Your task to perform on an android device: open app "Expedia: Hotels, Flights & Car" Image 0: 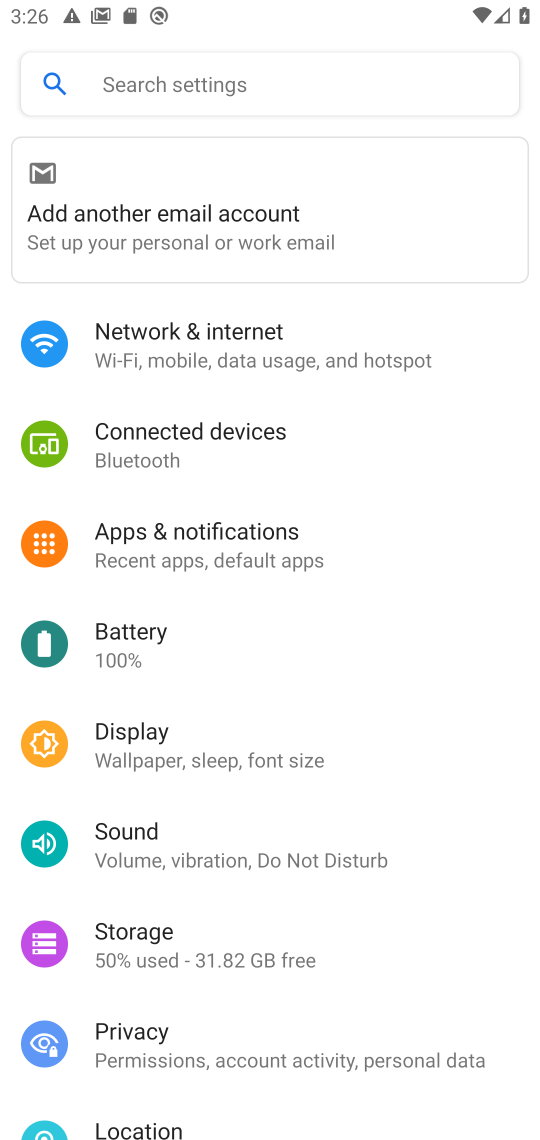
Step 0: press home button
Your task to perform on an android device: open app "Expedia: Hotels, Flights & Car" Image 1: 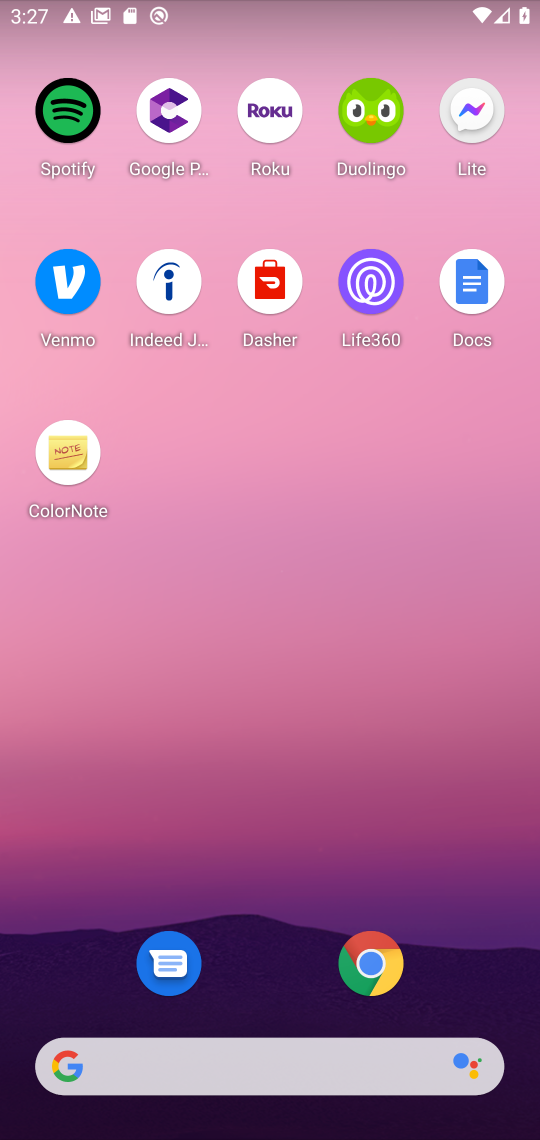
Step 1: drag from (213, 1045) to (216, 233)
Your task to perform on an android device: open app "Expedia: Hotels, Flights & Car" Image 2: 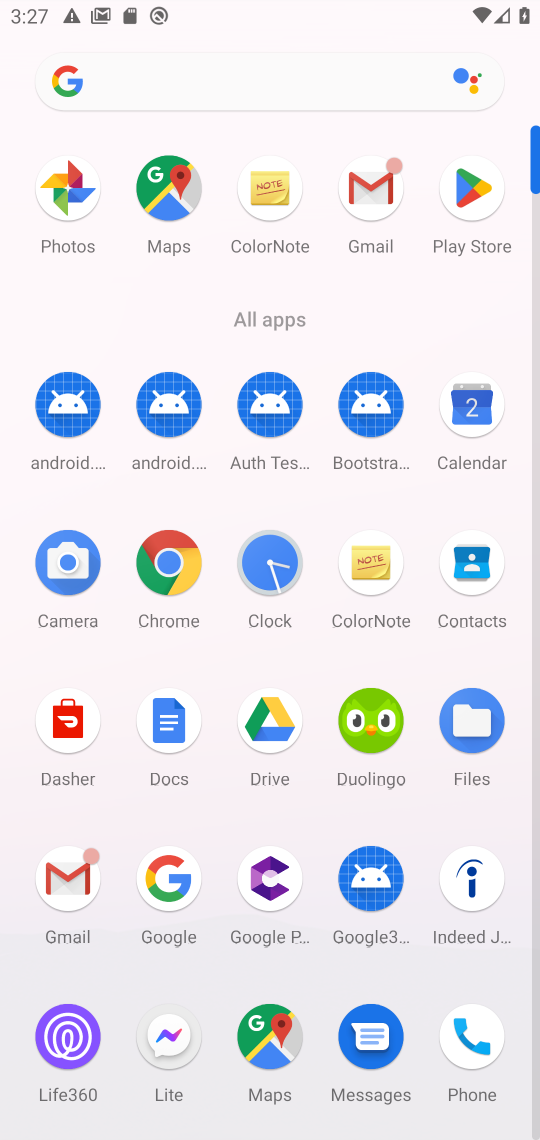
Step 2: click (470, 178)
Your task to perform on an android device: open app "Expedia: Hotels, Flights & Car" Image 3: 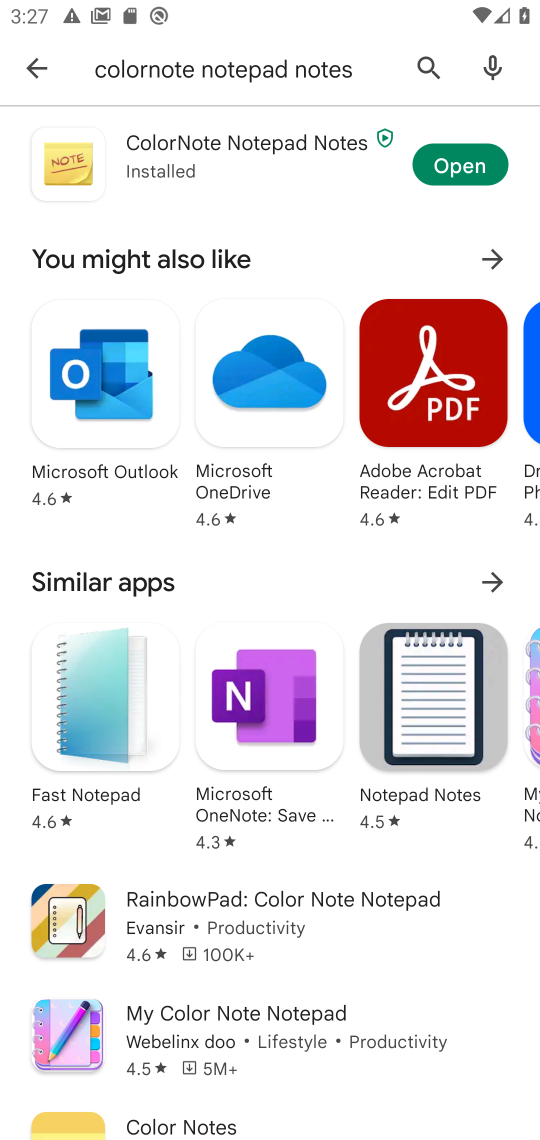
Step 3: click (428, 69)
Your task to perform on an android device: open app "Expedia: Hotels, Flights & Car" Image 4: 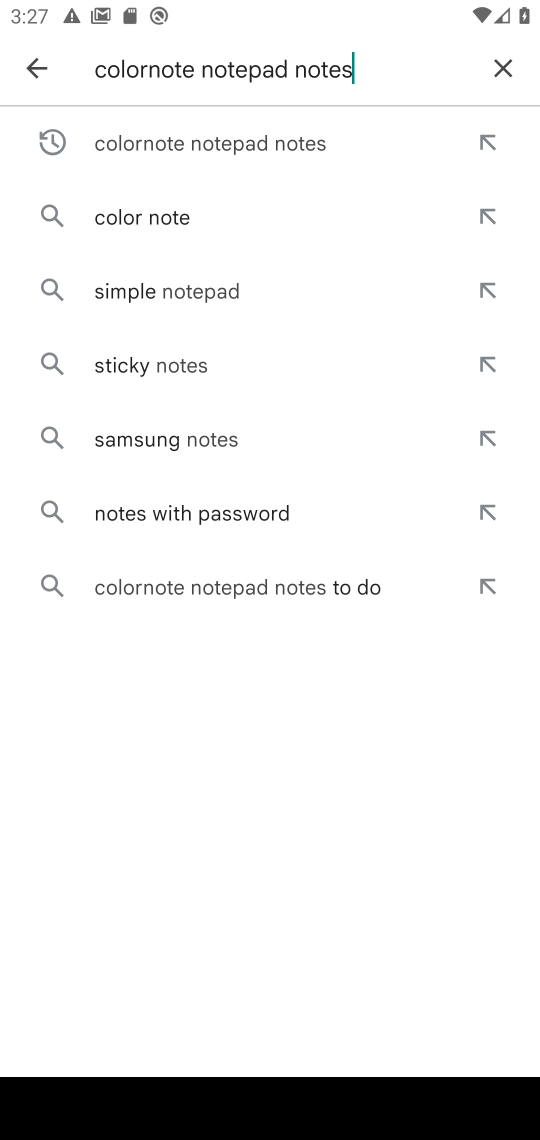
Step 4: click (499, 75)
Your task to perform on an android device: open app "Expedia: Hotels, Flights & Car" Image 5: 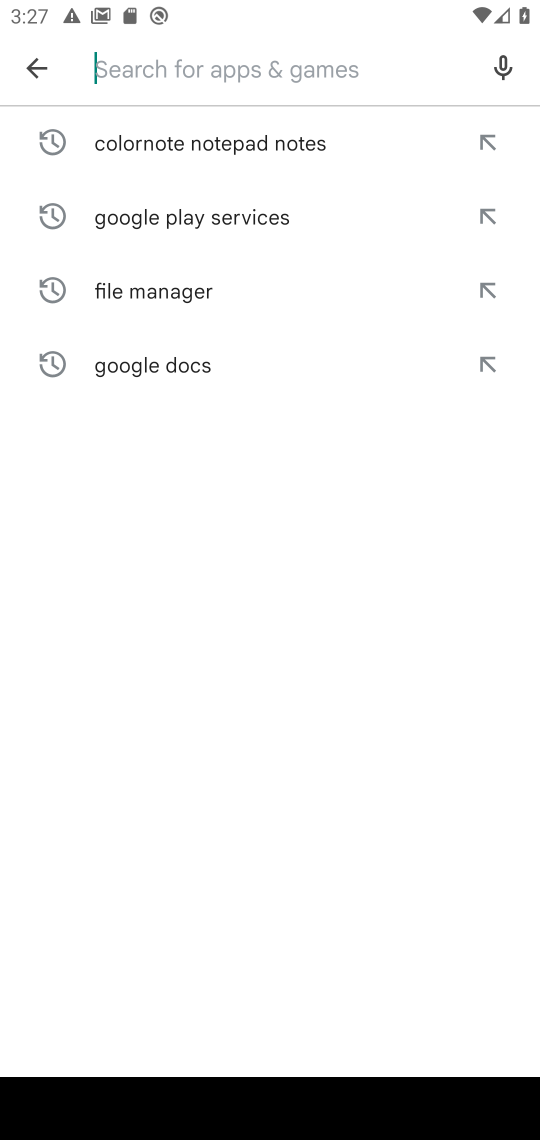
Step 5: type "Expedia: Hotels, Flights & Car""
Your task to perform on an android device: open app "Expedia: Hotels, Flights & Car" Image 6: 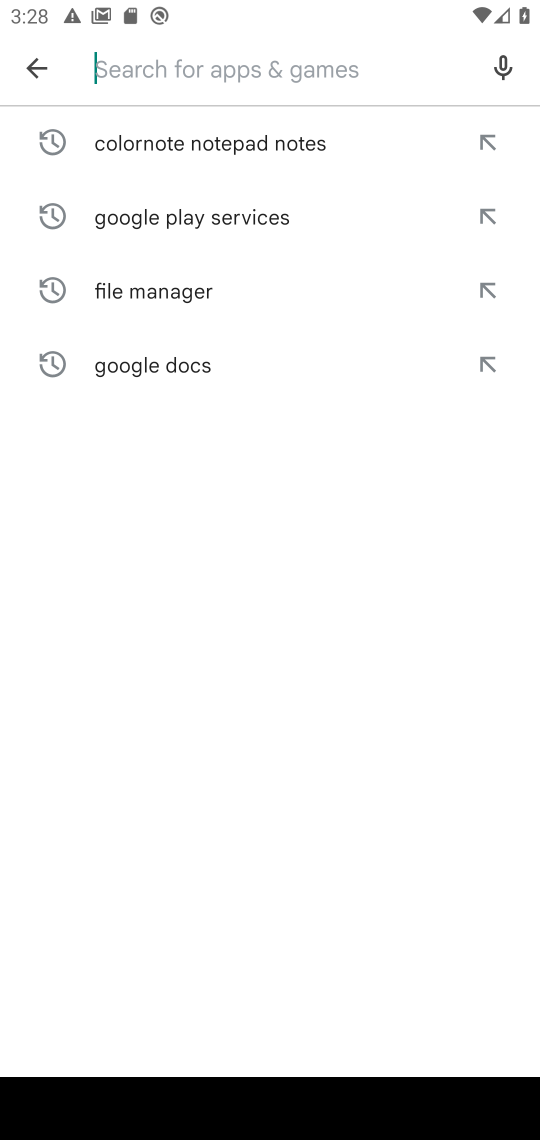
Step 6: type "Expedia: Hotels, Flights & Car"
Your task to perform on an android device: open app "Expedia: Hotels, Flights & Car" Image 7: 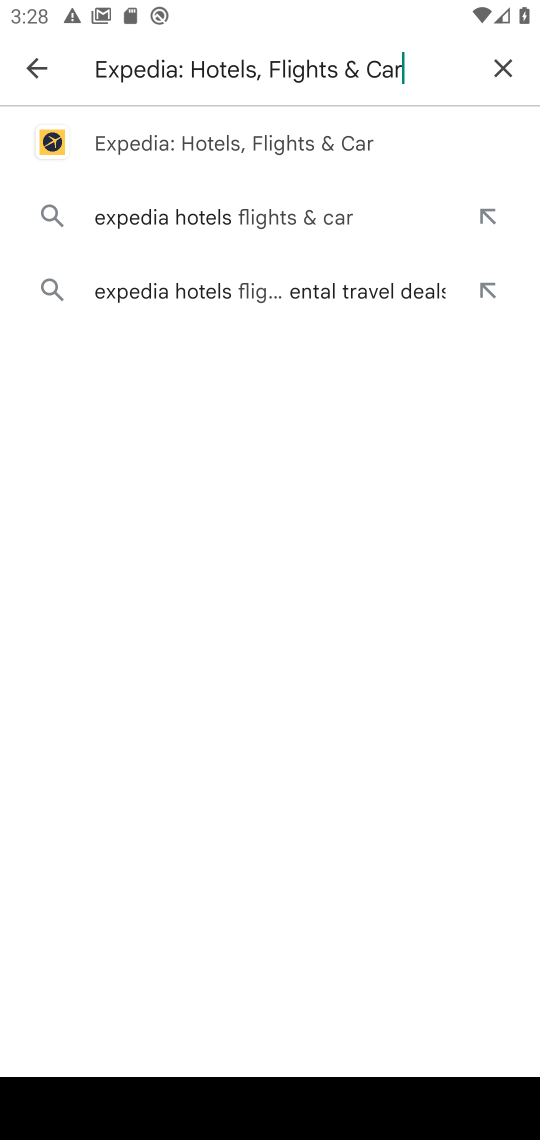
Step 7: click (112, 153)
Your task to perform on an android device: open app "Expedia: Hotels, Flights & Car" Image 8: 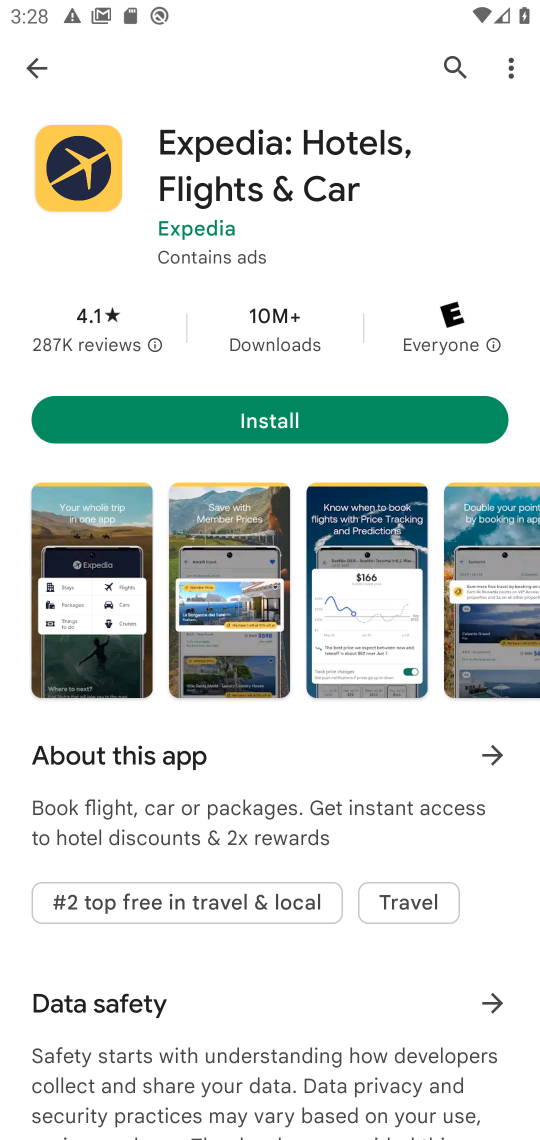
Step 8: click (256, 427)
Your task to perform on an android device: open app "Expedia: Hotels, Flights & Car" Image 9: 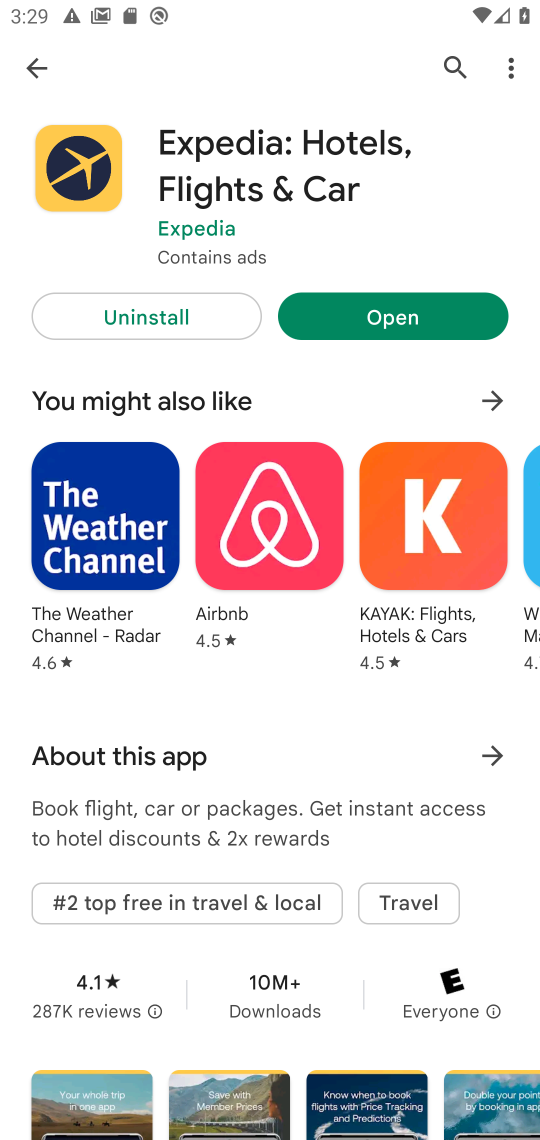
Step 9: click (346, 325)
Your task to perform on an android device: open app "Expedia: Hotels, Flights & Car" Image 10: 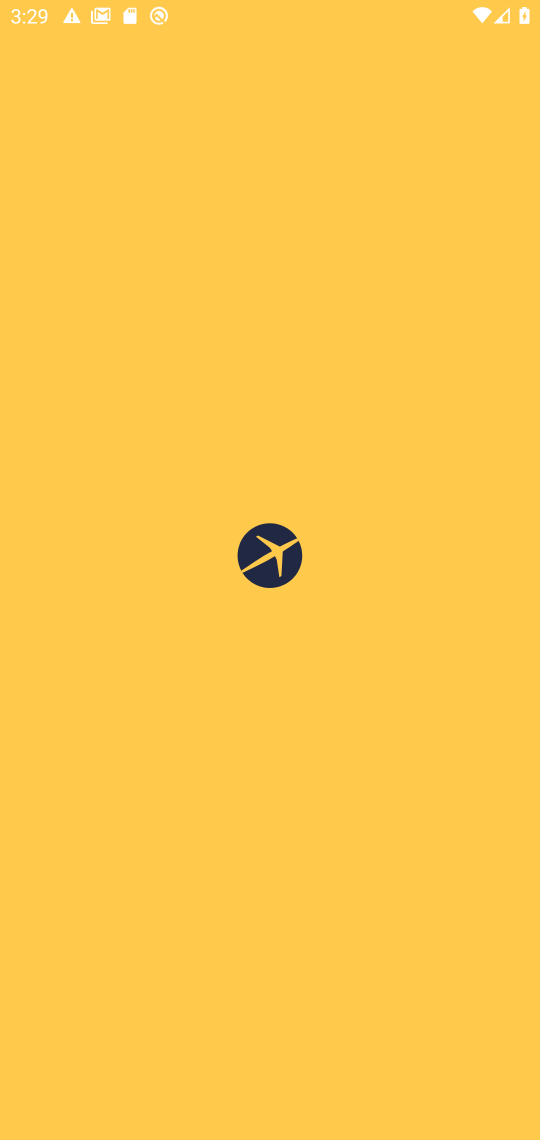
Step 10: task complete